Your task to perform on an android device: Show me productivity apps on the Play Store Image 0: 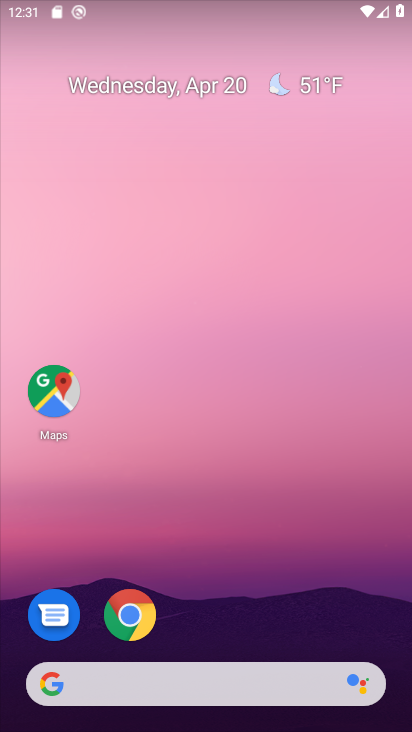
Step 0: drag from (179, 681) to (159, 154)
Your task to perform on an android device: Show me productivity apps on the Play Store Image 1: 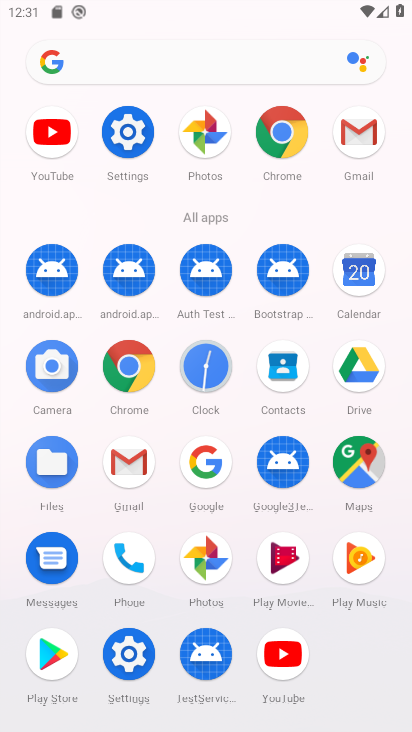
Step 1: click (69, 654)
Your task to perform on an android device: Show me productivity apps on the Play Store Image 2: 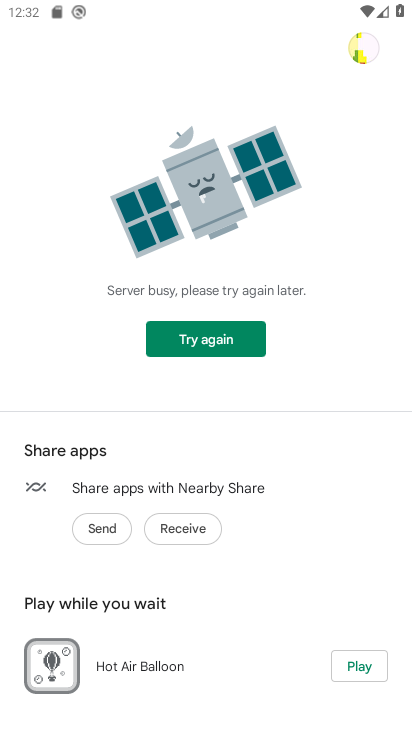
Step 2: click (173, 356)
Your task to perform on an android device: Show me productivity apps on the Play Store Image 3: 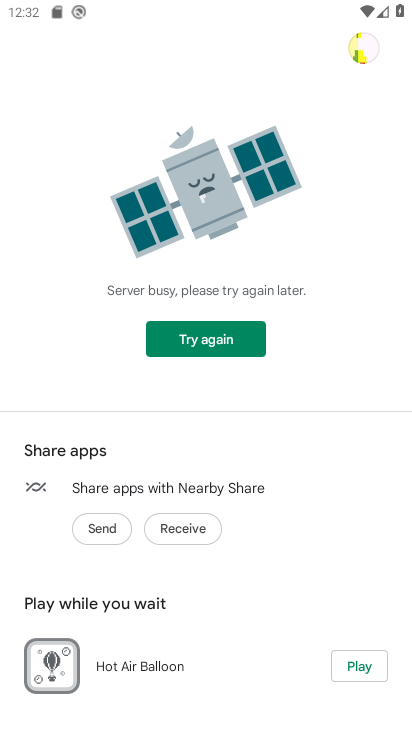
Step 3: task complete